Your task to perform on an android device: turn on airplane mode Image 0: 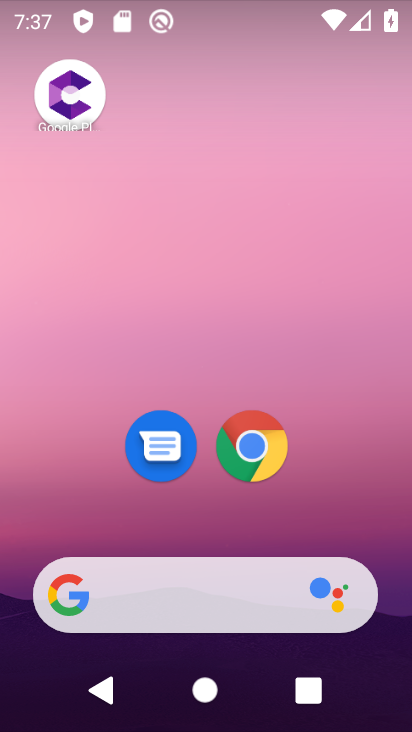
Step 0: drag from (370, 523) to (356, 2)
Your task to perform on an android device: turn on airplane mode Image 1: 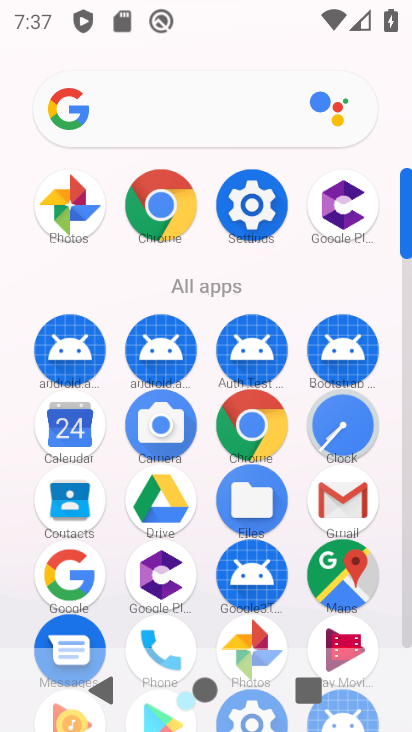
Step 1: click (257, 203)
Your task to perform on an android device: turn on airplane mode Image 2: 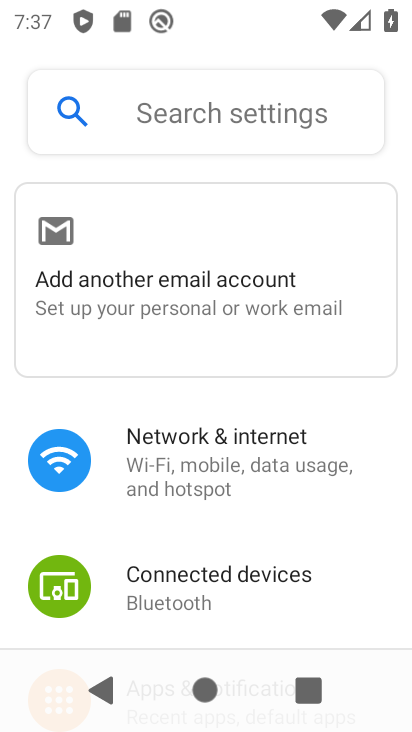
Step 2: drag from (310, 465) to (305, 115)
Your task to perform on an android device: turn on airplane mode Image 3: 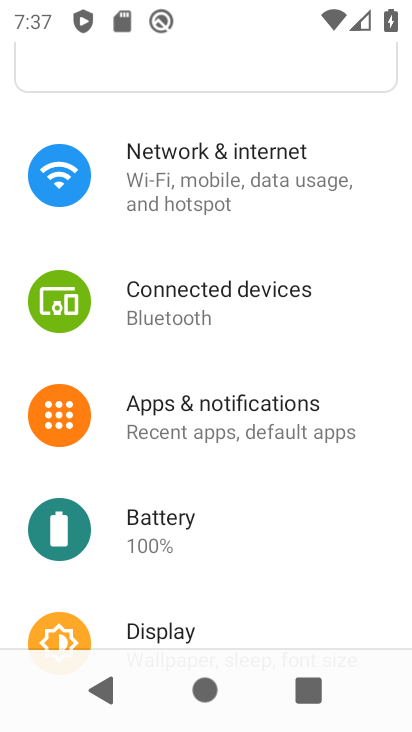
Step 3: click (263, 161)
Your task to perform on an android device: turn on airplane mode Image 4: 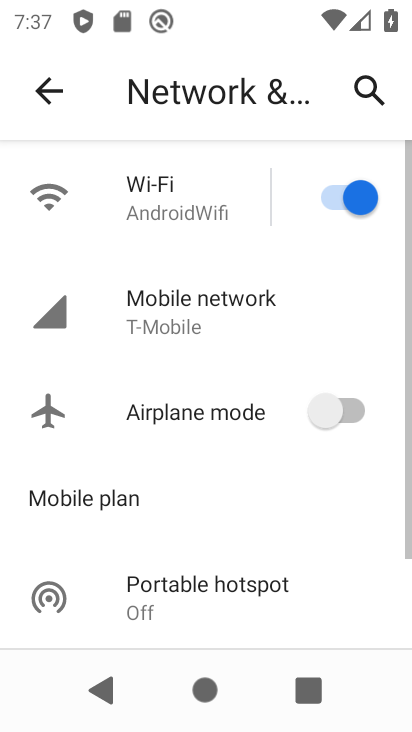
Step 4: click (335, 412)
Your task to perform on an android device: turn on airplane mode Image 5: 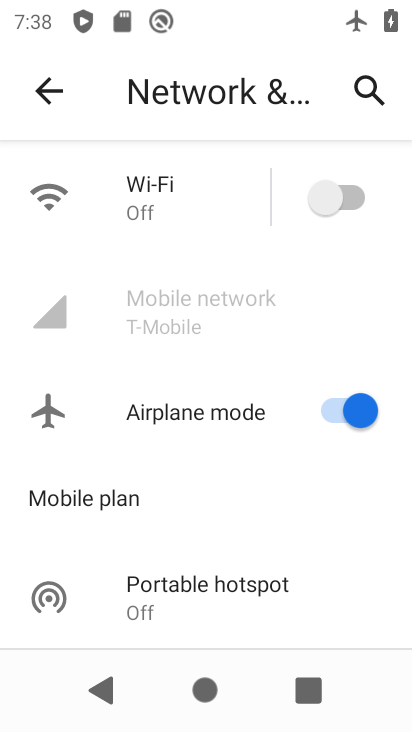
Step 5: task complete